Your task to perform on an android device: Go to display settings Image 0: 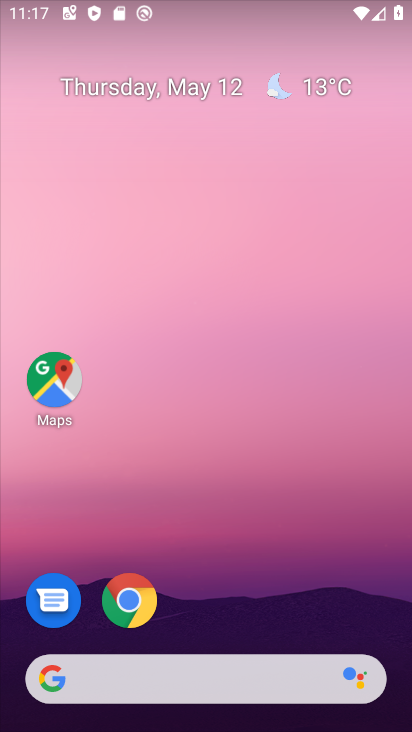
Step 0: drag from (388, 631) to (290, 73)
Your task to perform on an android device: Go to display settings Image 1: 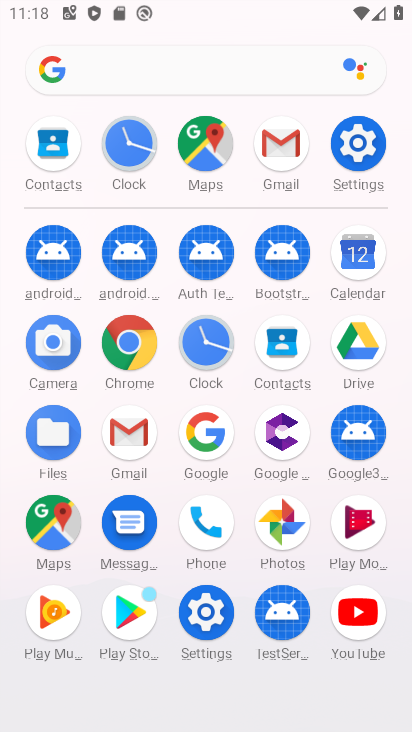
Step 1: click (204, 612)
Your task to perform on an android device: Go to display settings Image 2: 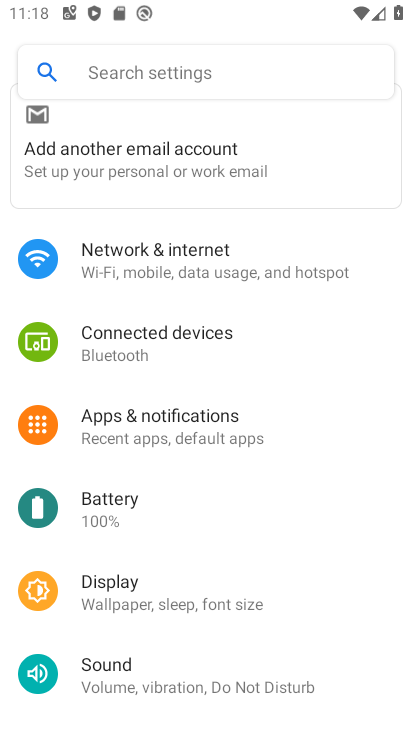
Step 2: click (111, 593)
Your task to perform on an android device: Go to display settings Image 3: 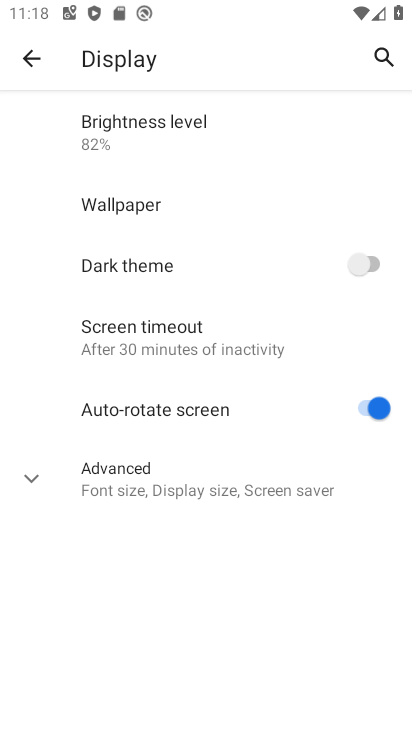
Step 3: click (29, 483)
Your task to perform on an android device: Go to display settings Image 4: 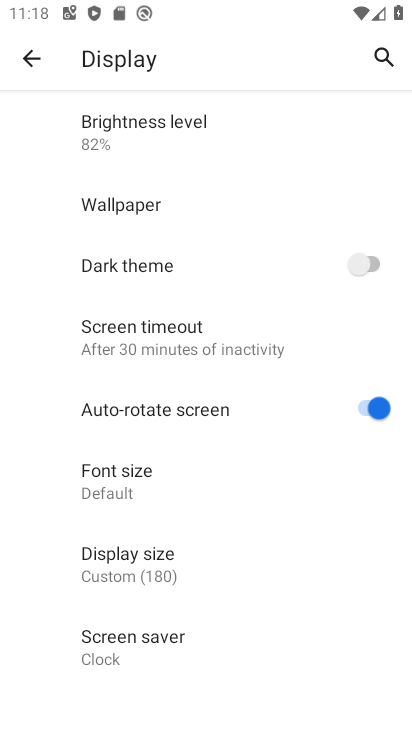
Step 4: task complete